Your task to perform on an android device: Go to calendar. Show me events next week Image 0: 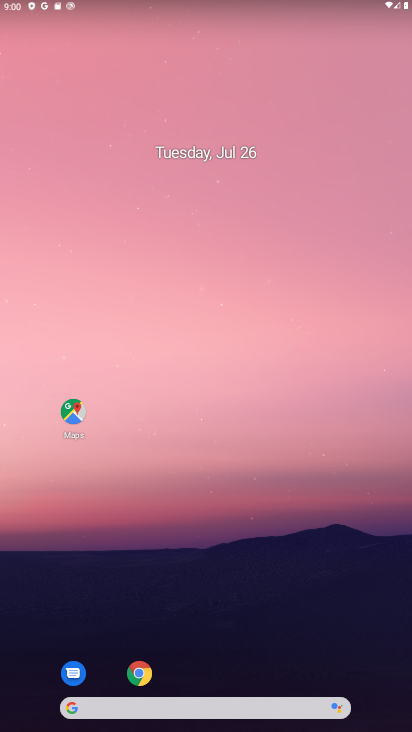
Step 0: drag from (232, 621) to (178, 190)
Your task to perform on an android device: Go to calendar. Show me events next week Image 1: 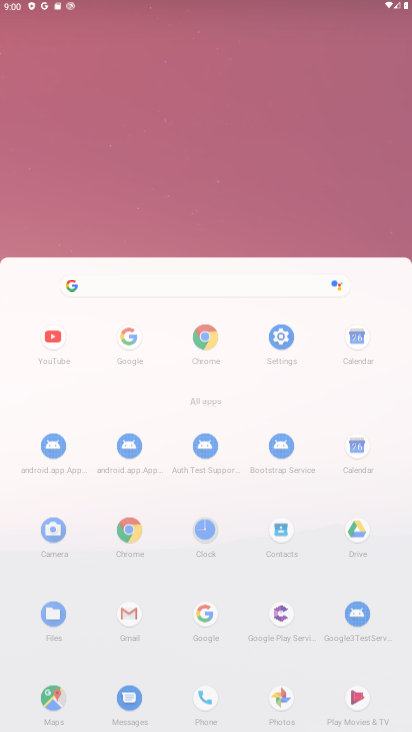
Step 1: drag from (256, 548) to (180, 169)
Your task to perform on an android device: Go to calendar. Show me events next week Image 2: 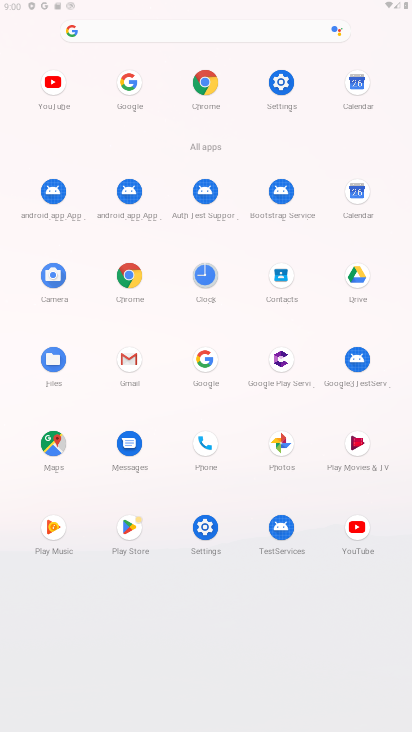
Step 2: drag from (264, 695) to (226, 269)
Your task to perform on an android device: Go to calendar. Show me events next week Image 3: 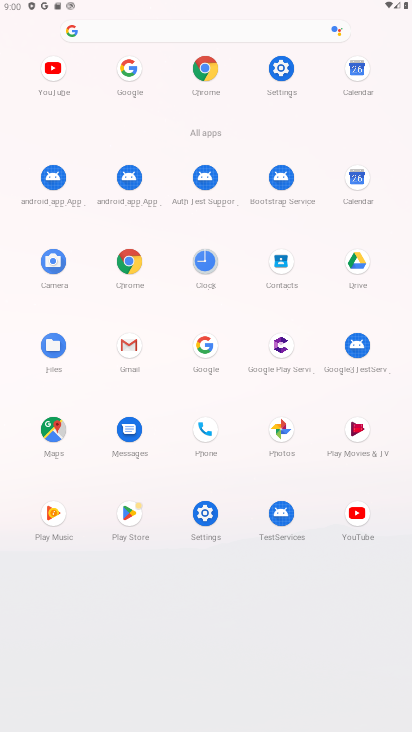
Step 3: drag from (308, 624) to (249, 421)
Your task to perform on an android device: Go to calendar. Show me events next week Image 4: 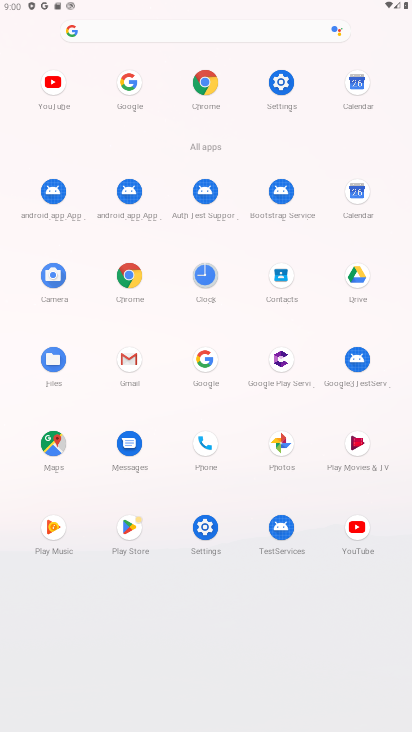
Step 4: click (352, 192)
Your task to perform on an android device: Go to calendar. Show me events next week Image 5: 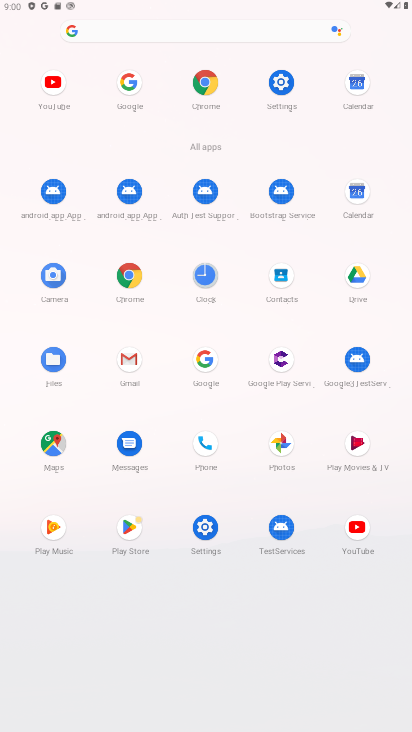
Step 5: click (352, 192)
Your task to perform on an android device: Go to calendar. Show me events next week Image 6: 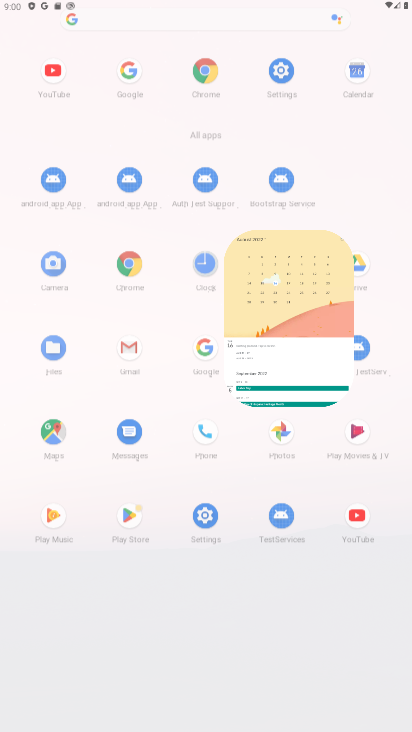
Step 6: click (353, 192)
Your task to perform on an android device: Go to calendar. Show me events next week Image 7: 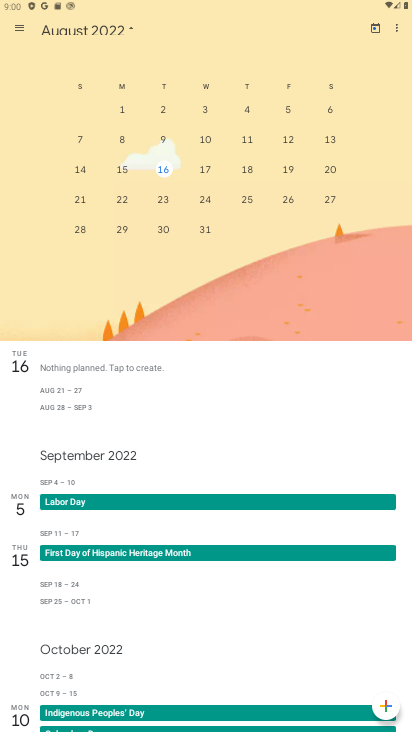
Step 7: click (354, 198)
Your task to perform on an android device: Go to calendar. Show me events next week Image 8: 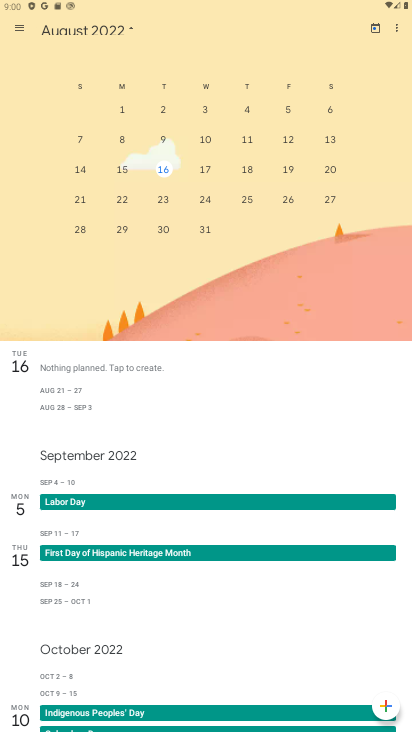
Step 8: task complete